Your task to perform on an android device: refresh tabs in the chrome app Image 0: 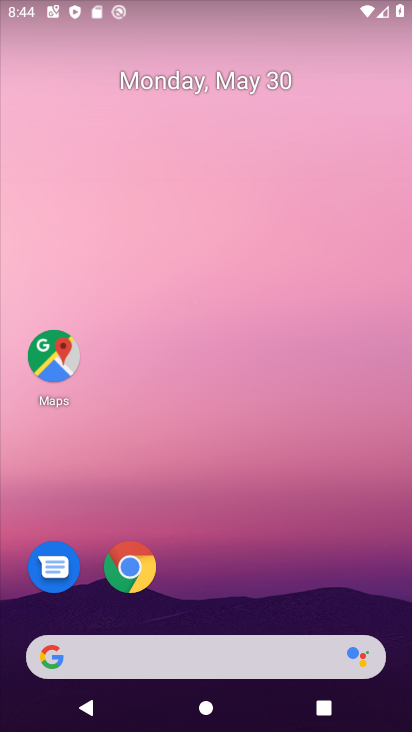
Step 0: click (134, 578)
Your task to perform on an android device: refresh tabs in the chrome app Image 1: 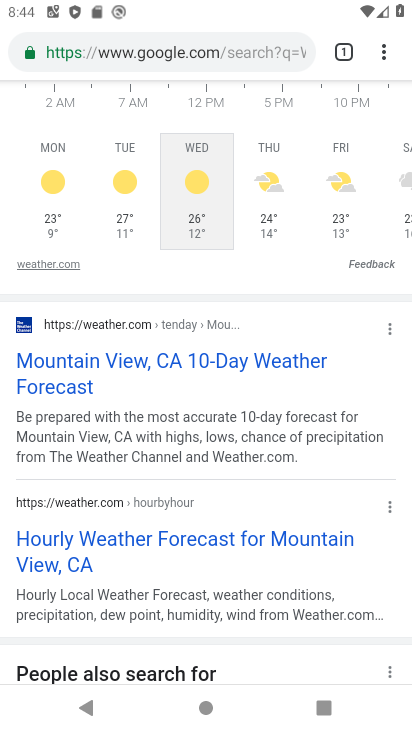
Step 1: click (384, 63)
Your task to perform on an android device: refresh tabs in the chrome app Image 2: 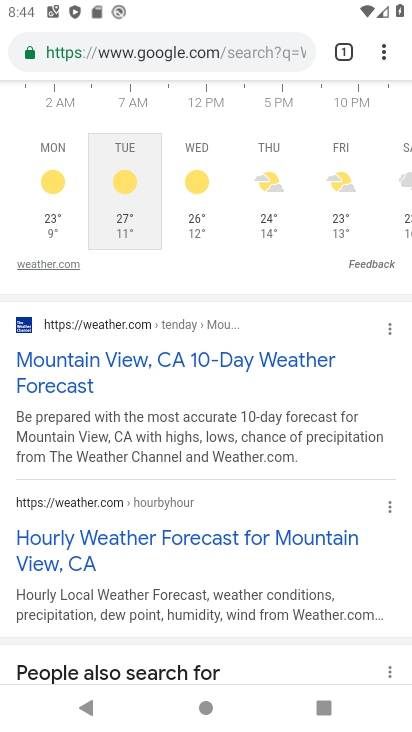
Step 2: task complete